Your task to perform on an android device: clear all cookies in the chrome app Image 0: 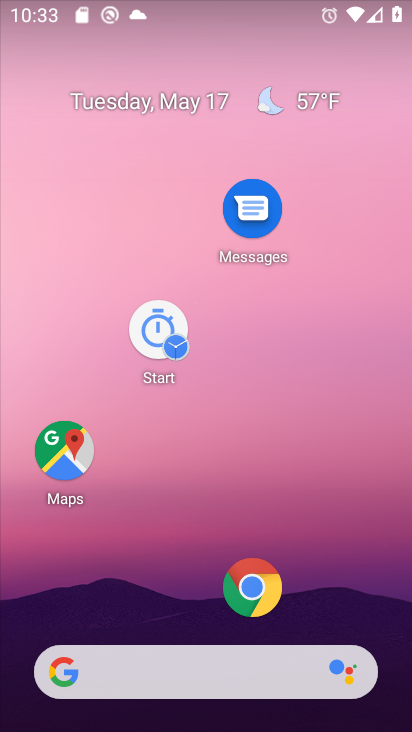
Step 0: drag from (365, 646) to (229, 230)
Your task to perform on an android device: clear all cookies in the chrome app Image 1: 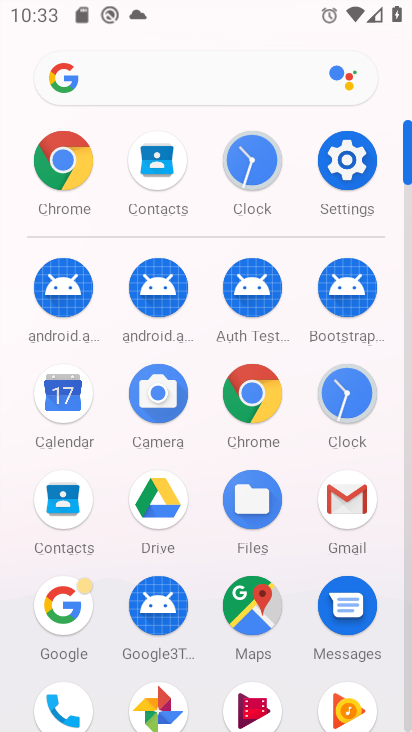
Step 1: click (73, 161)
Your task to perform on an android device: clear all cookies in the chrome app Image 2: 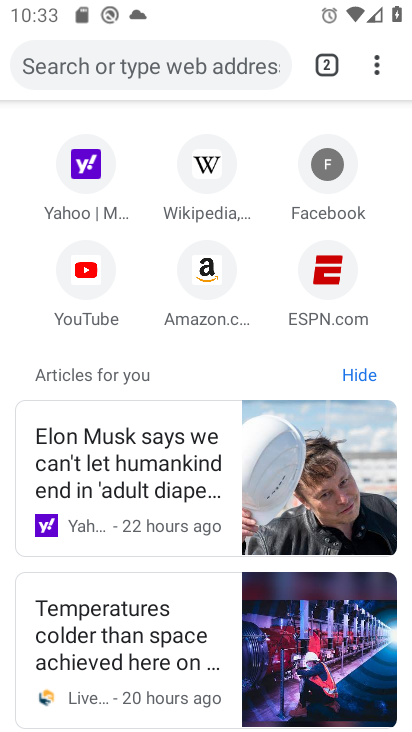
Step 2: drag from (369, 75) to (145, 371)
Your task to perform on an android device: clear all cookies in the chrome app Image 3: 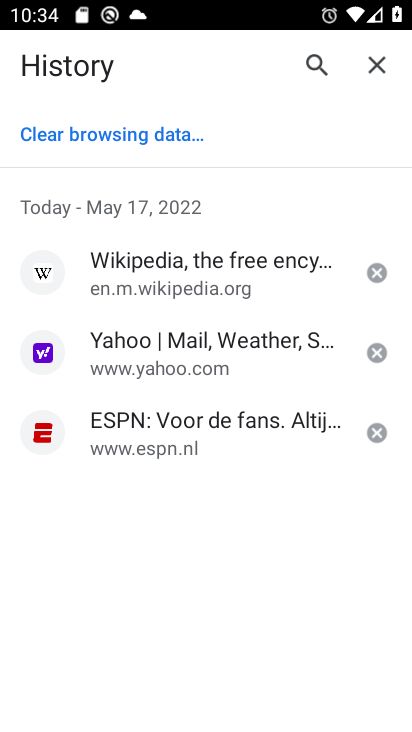
Step 3: click (131, 145)
Your task to perform on an android device: clear all cookies in the chrome app Image 4: 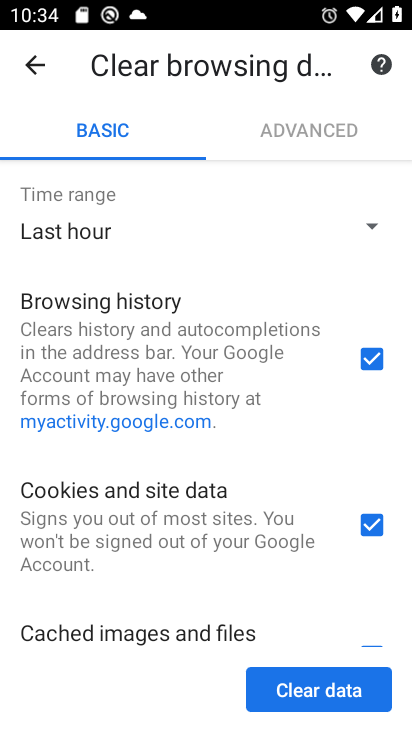
Step 4: click (331, 673)
Your task to perform on an android device: clear all cookies in the chrome app Image 5: 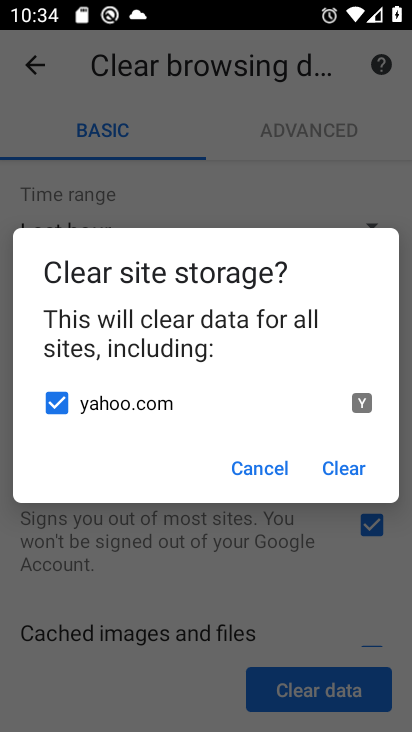
Step 5: drag from (261, 467) to (375, 473)
Your task to perform on an android device: clear all cookies in the chrome app Image 6: 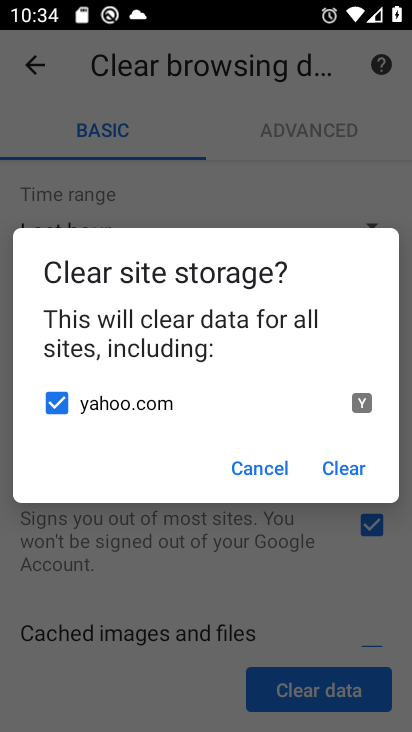
Step 6: click (277, 475)
Your task to perform on an android device: clear all cookies in the chrome app Image 7: 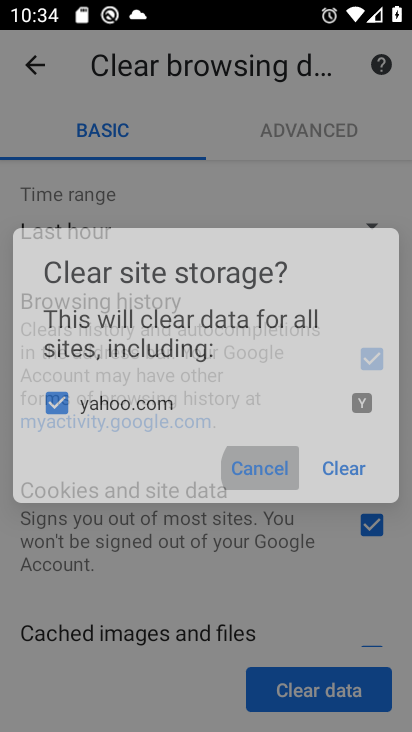
Step 7: click (276, 474)
Your task to perform on an android device: clear all cookies in the chrome app Image 8: 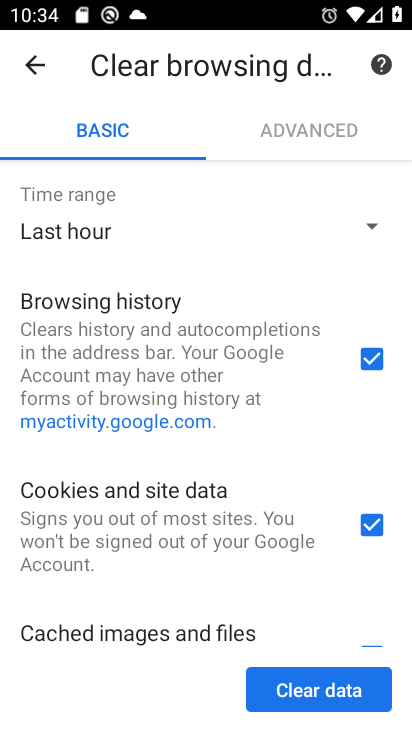
Step 8: click (276, 474)
Your task to perform on an android device: clear all cookies in the chrome app Image 9: 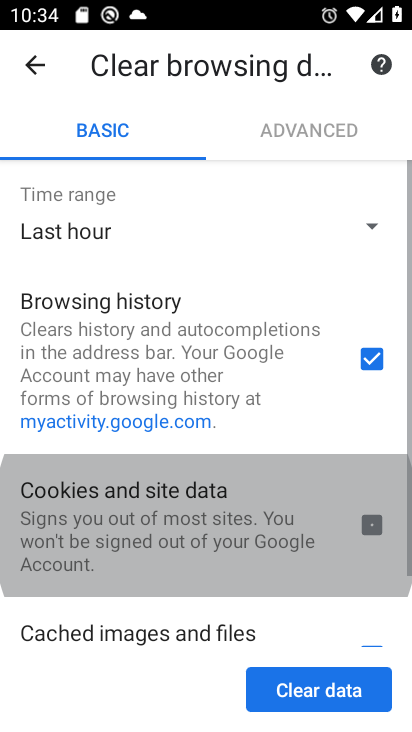
Step 9: click (262, 461)
Your task to perform on an android device: clear all cookies in the chrome app Image 10: 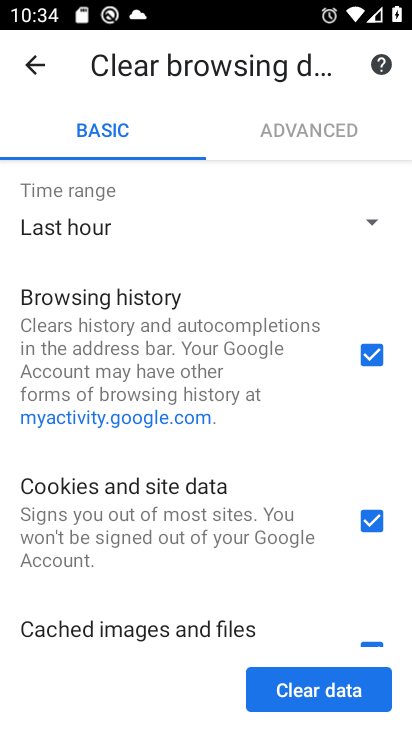
Step 10: press back button
Your task to perform on an android device: clear all cookies in the chrome app Image 11: 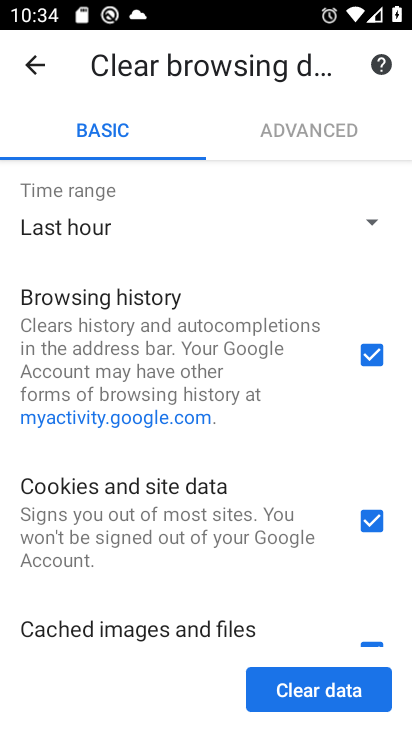
Step 11: press back button
Your task to perform on an android device: clear all cookies in the chrome app Image 12: 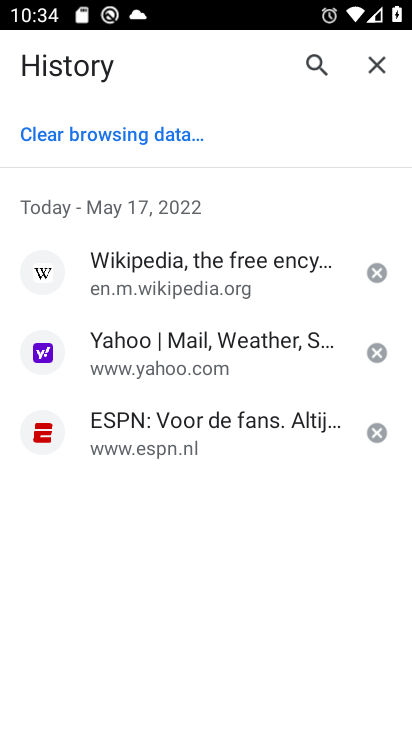
Step 12: press back button
Your task to perform on an android device: clear all cookies in the chrome app Image 13: 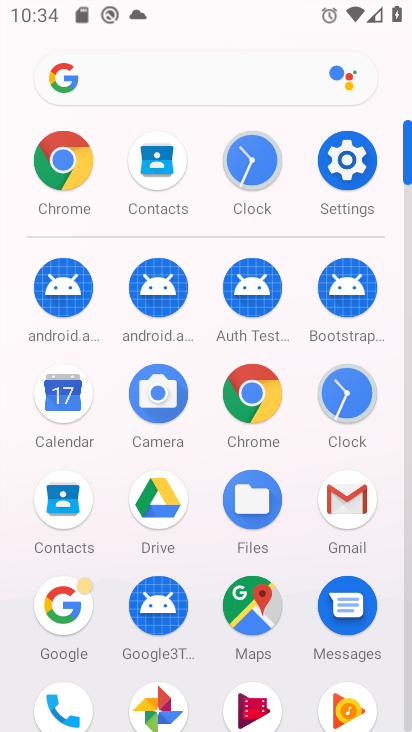
Step 13: click (259, 421)
Your task to perform on an android device: clear all cookies in the chrome app Image 14: 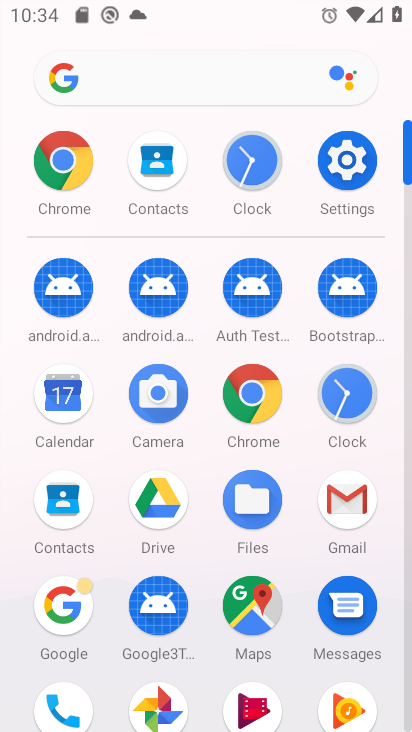
Step 14: click (259, 410)
Your task to perform on an android device: clear all cookies in the chrome app Image 15: 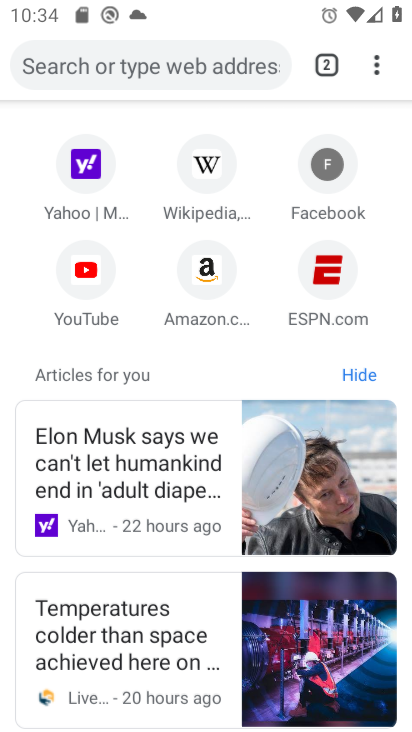
Step 15: click (259, 408)
Your task to perform on an android device: clear all cookies in the chrome app Image 16: 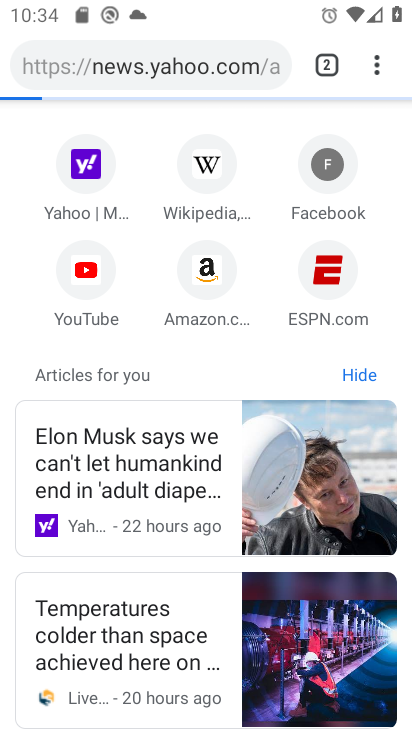
Step 16: drag from (384, 61) to (137, 638)
Your task to perform on an android device: clear all cookies in the chrome app Image 17: 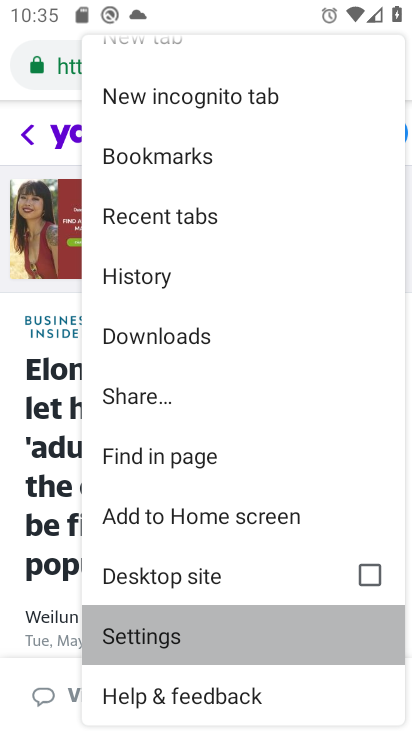
Step 17: click (133, 612)
Your task to perform on an android device: clear all cookies in the chrome app Image 18: 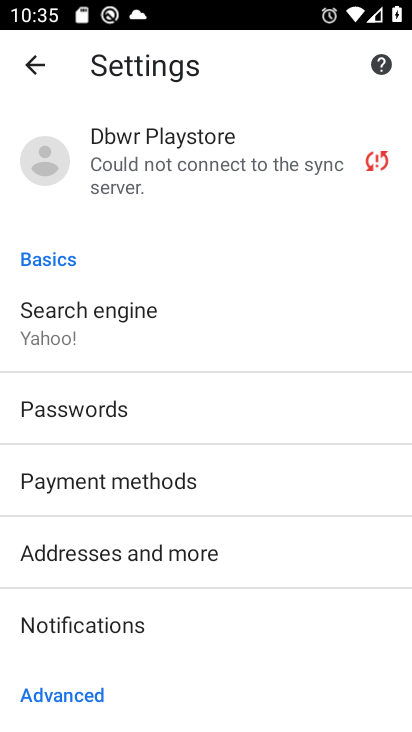
Step 18: drag from (215, 521) to (206, 67)
Your task to perform on an android device: clear all cookies in the chrome app Image 19: 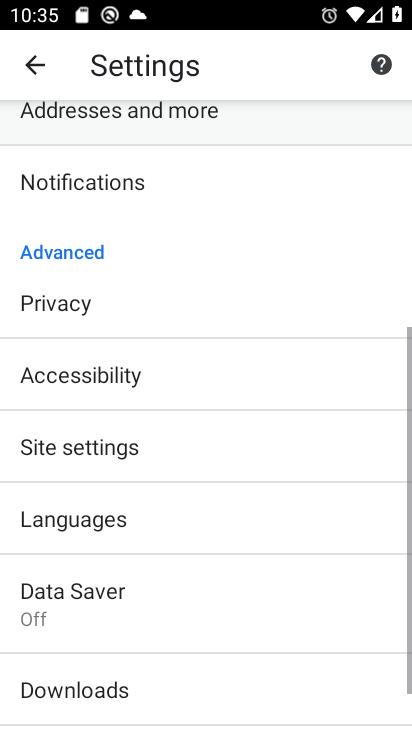
Step 19: drag from (226, 499) to (261, 186)
Your task to perform on an android device: clear all cookies in the chrome app Image 20: 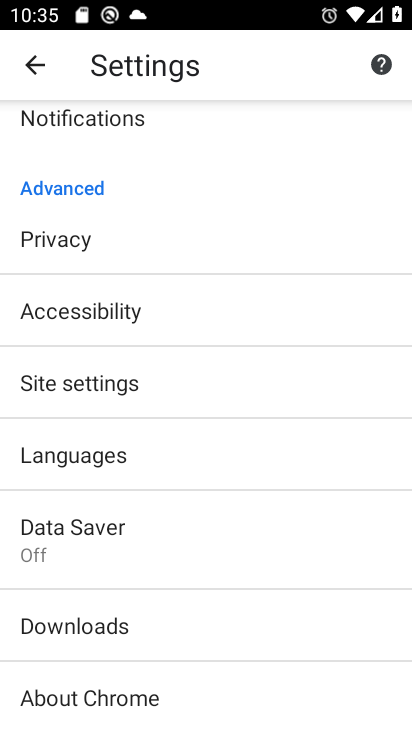
Step 20: click (66, 371)
Your task to perform on an android device: clear all cookies in the chrome app Image 21: 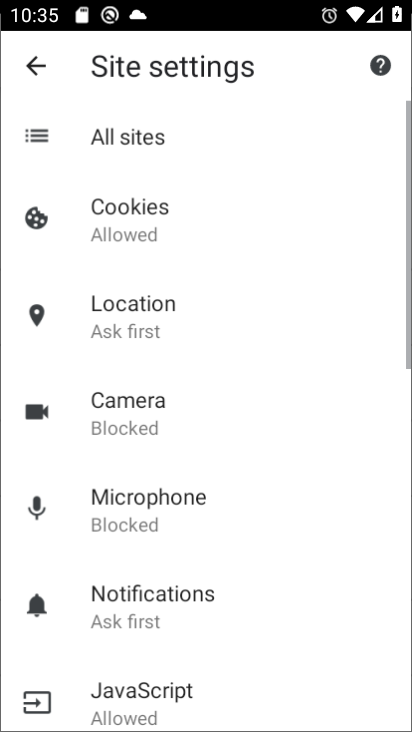
Step 21: click (71, 369)
Your task to perform on an android device: clear all cookies in the chrome app Image 22: 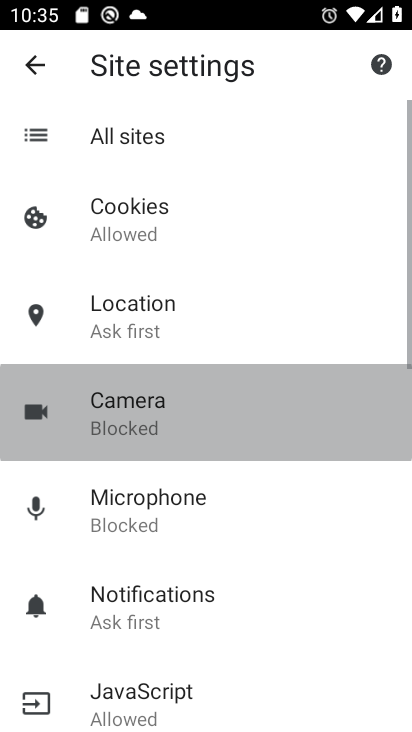
Step 22: click (74, 366)
Your task to perform on an android device: clear all cookies in the chrome app Image 23: 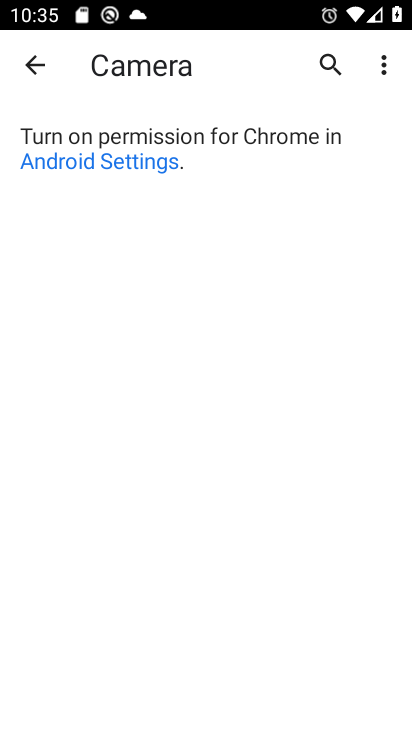
Step 23: task complete